Your task to perform on an android device: delete a single message in the gmail app Image 0: 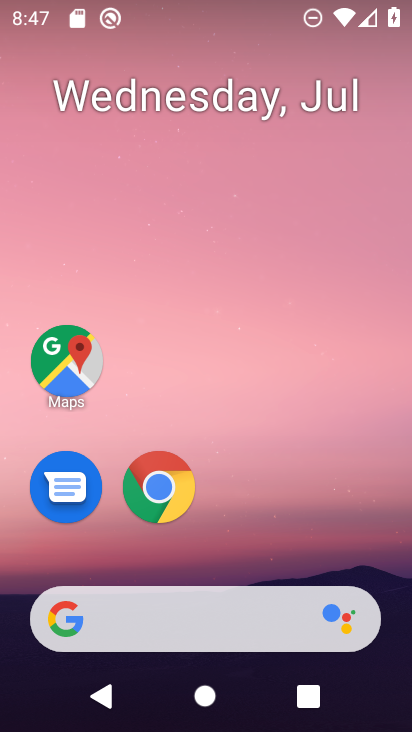
Step 0: drag from (346, 508) to (372, 125)
Your task to perform on an android device: delete a single message in the gmail app Image 1: 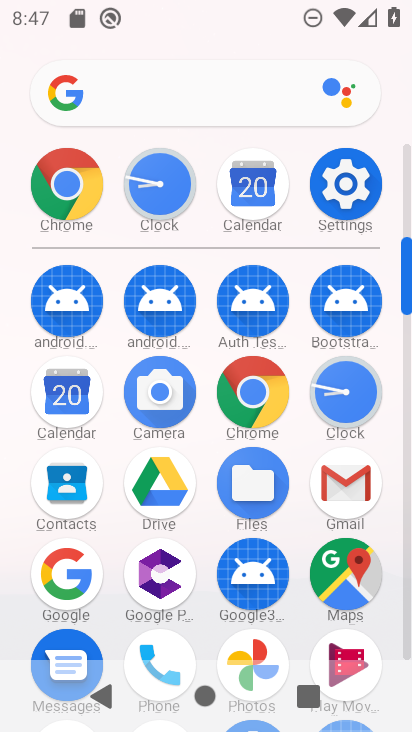
Step 1: click (348, 483)
Your task to perform on an android device: delete a single message in the gmail app Image 2: 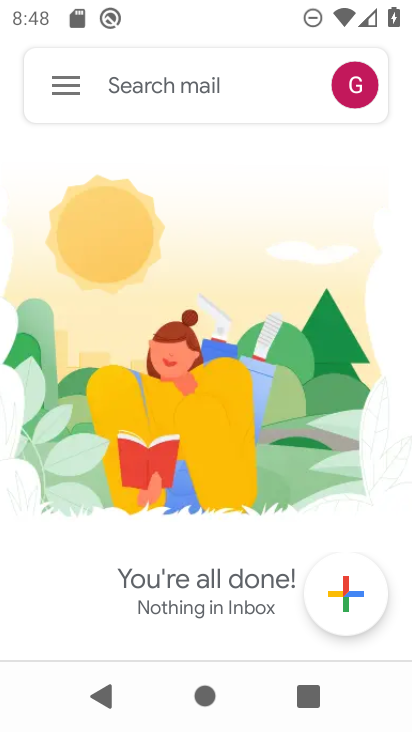
Step 2: click (65, 85)
Your task to perform on an android device: delete a single message in the gmail app Image 3: 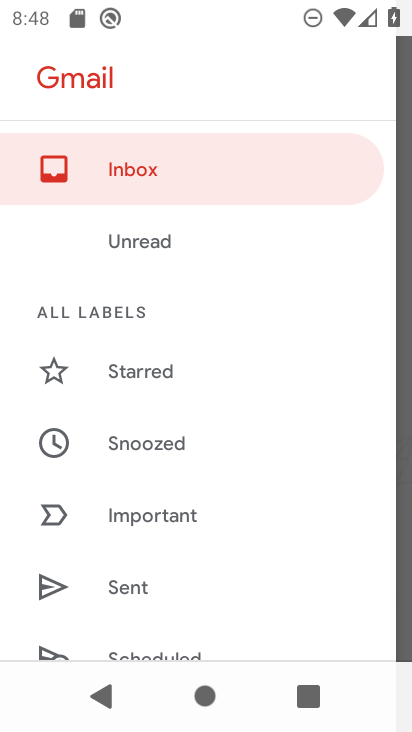
Step 3: drag from (288, 446) to (304, 340)
Your task to perform on an android device: delete a single message in the gmail app Image 4: 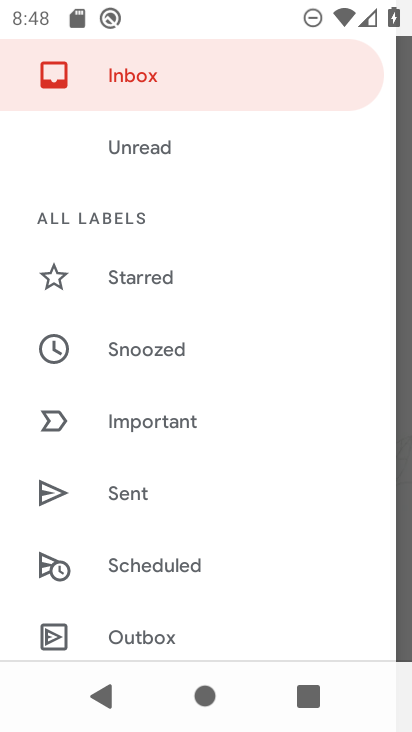
Step 4: drag from (295, 504) to (327, 326)
Your task to perform on an android device: delete a single message in the gmail app Image 5: 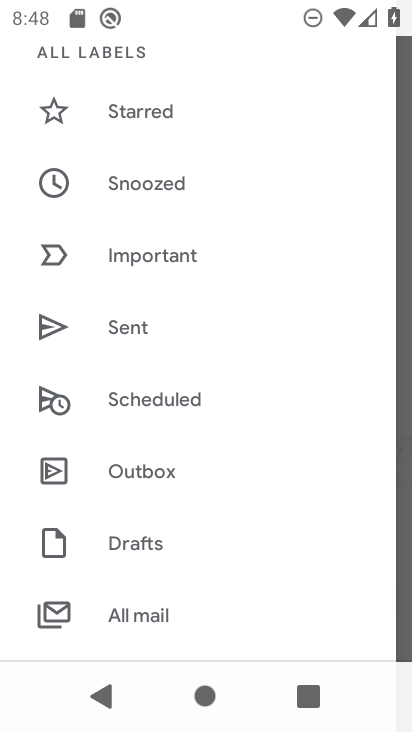
Step 5: drag from (294, 537) to (313, 399)
Your task to perform on an android device: delete a single message in the gmail app Image 6: 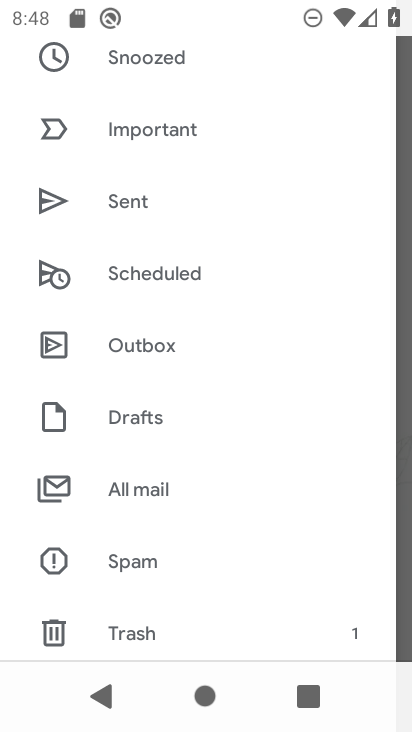
Step 6: click (251, 500)
Your task to perform on an android device: delete a single message in the gmail app Image 7: 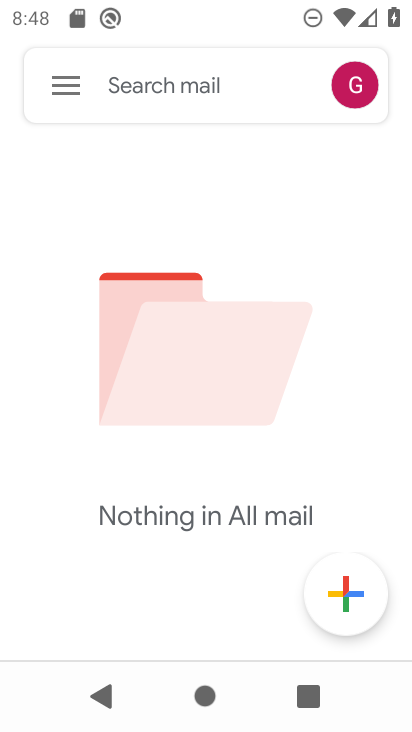
Step 7: task complete